Your task to perform on an android device: add a contact Image 0: 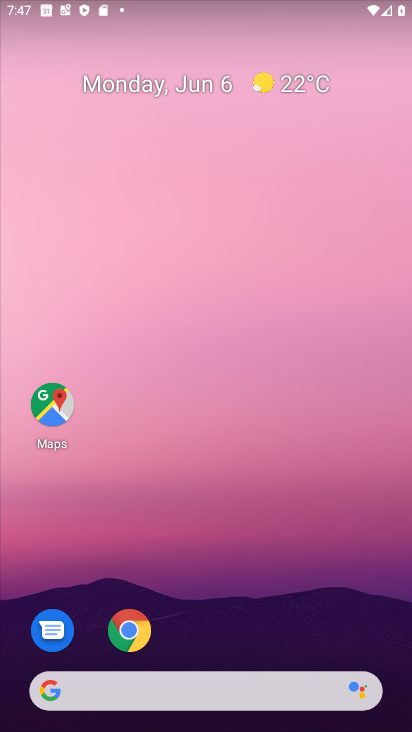
Step 0: drag from (185, 724) to (187, 107)
Your task to perform on an android device: add a contact Image 1: 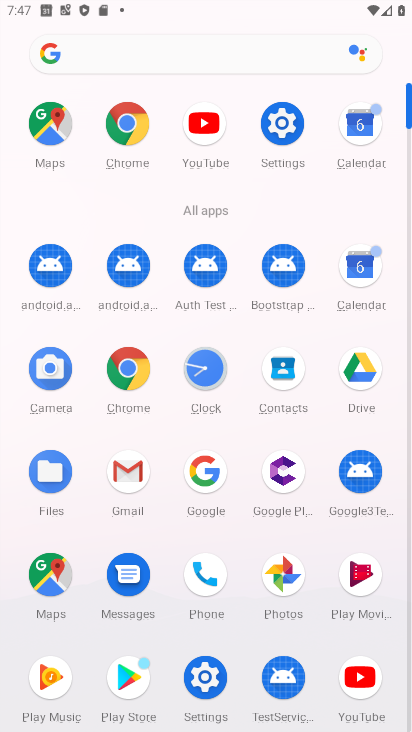
Step 1: click (291, 377)
Your task to perform on an android device: add a contact Image 2: 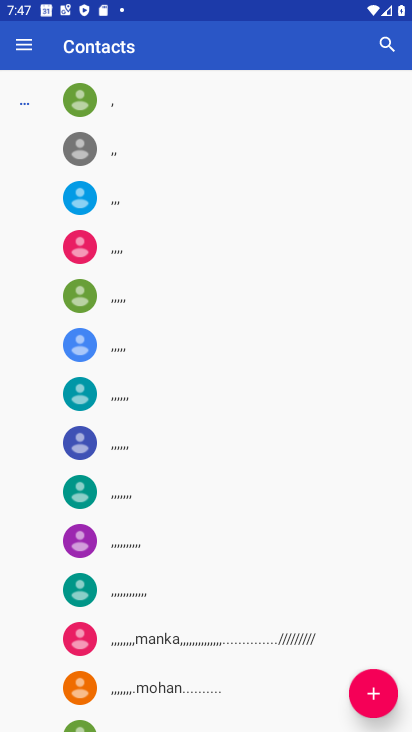
Step 2: click (385, 687)
Your task to perform on an android device: add a contact Image 3: 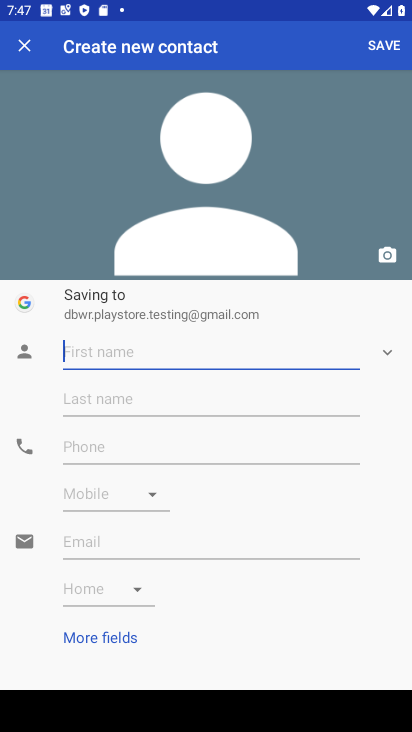
Step 3: type "akhwsg"
Your task to perform on an android device: add a contact Image 4: 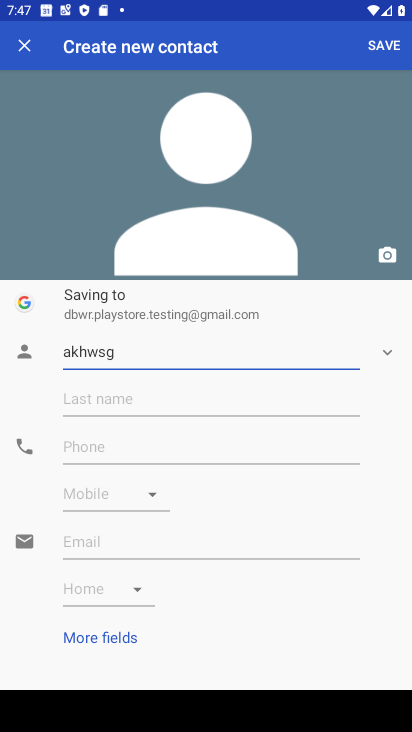
Step 4: click (103, 444)
Your task to perform on an android device: add a contact Image 5: 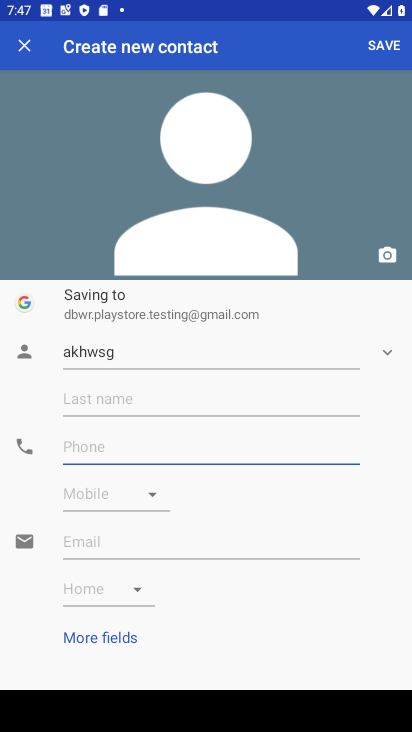
Step 5: click (219, 447)
Your task to perform on an android device: add a contact Image 6: 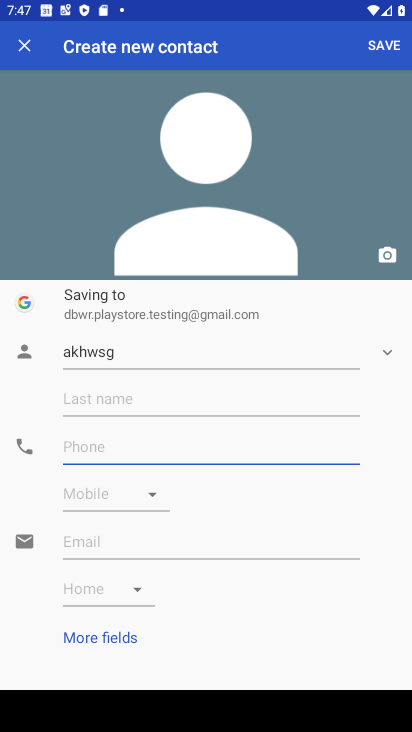
Step 6: type "9877525317"
Your task to perform on an android device: add a contact Image 7: 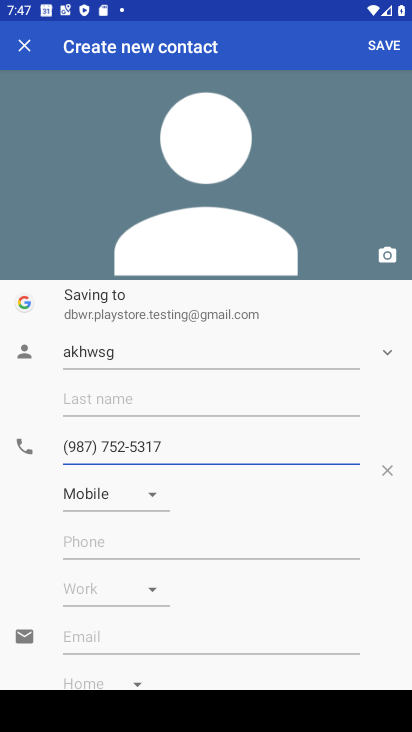
Step 7: click (386, 51)
Your task to perform on an android device: add a contact Image 8: 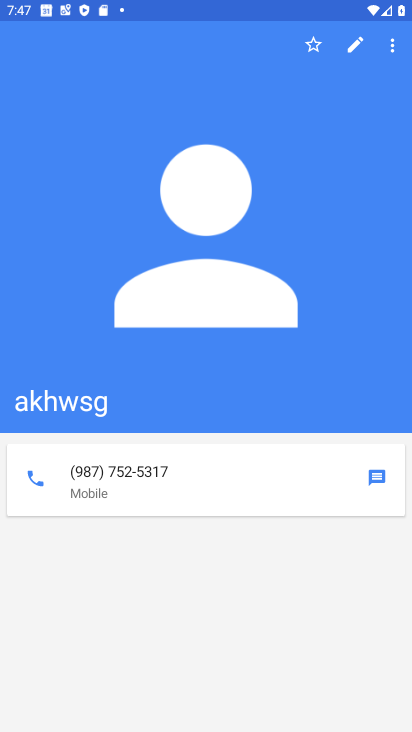
Step 8: task complete